Your task to perform on an android device: Show me recent news Image 0: 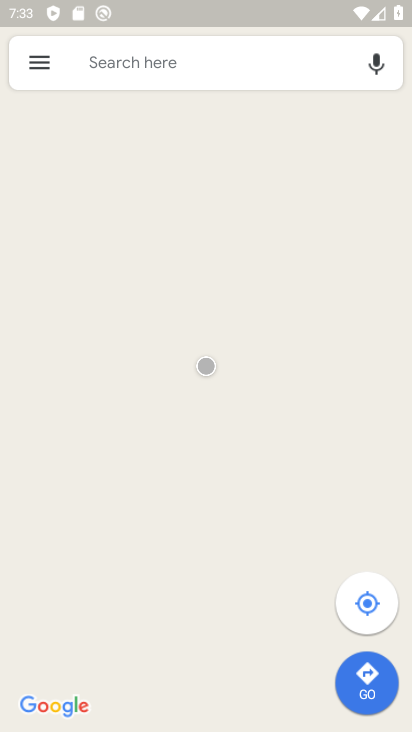
Step 0: press back button
Your task to perform on an android device: Show me recent news Image 1: 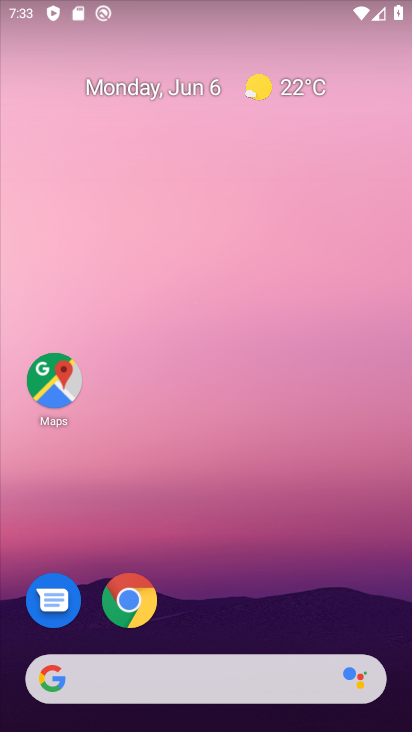
Step 1: drag from (223, 591) to (189, 181)
Your task to perform on an android device: Show me recent news Image 2: 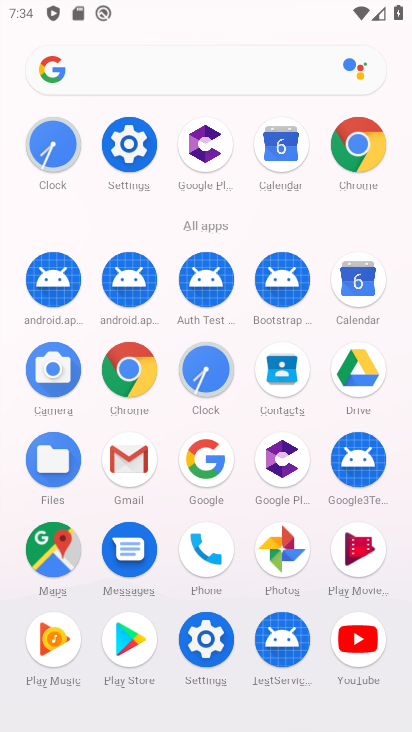
Step 2: click (203, 458)
Your task to perform on an android device: Show me recent news Image 3: 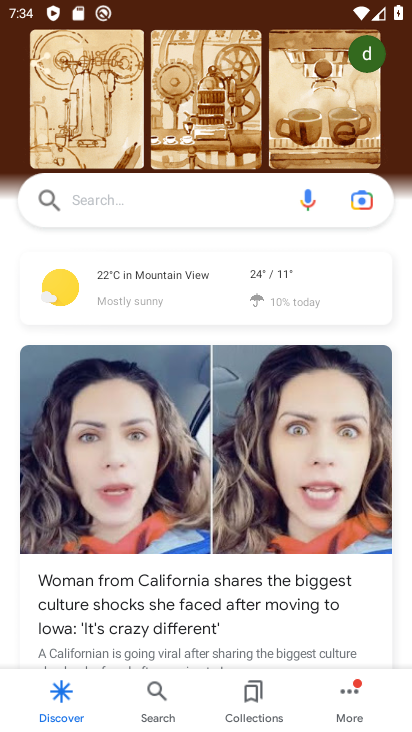
Step 3: click (175, 206)
Your task to perform on an android device: Show me recent news Image 4: 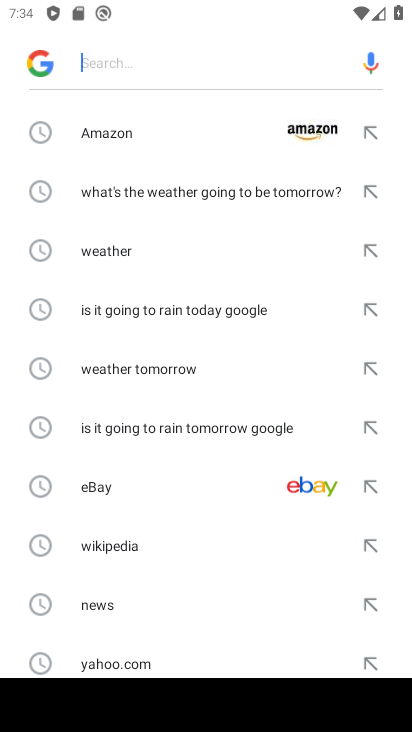
Step 4: type "recent news"
Your task to perform on an android device: Show me recent news Image 5: 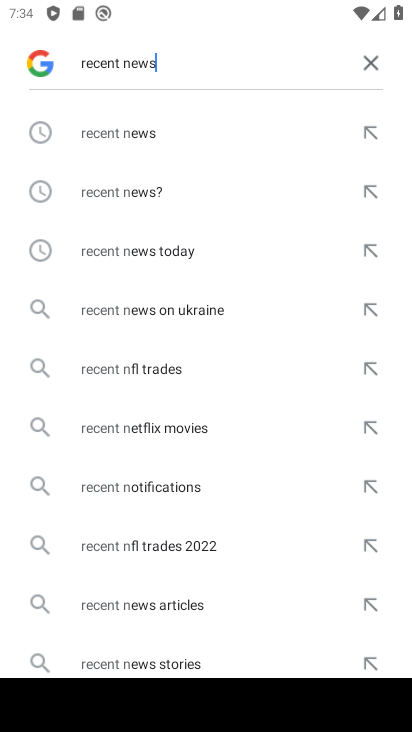
Step 5: type ""
Your task to perform on an android device: Show me recent news Image 6: 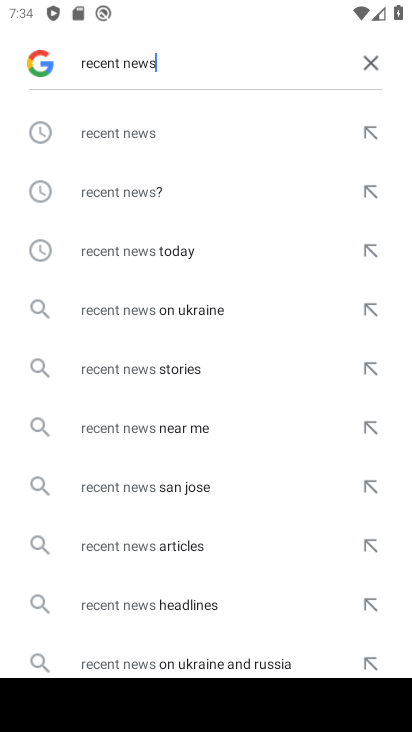
Step 6: click (125, 148)
Your task to perform on an android device: Show me recent news Image 7: 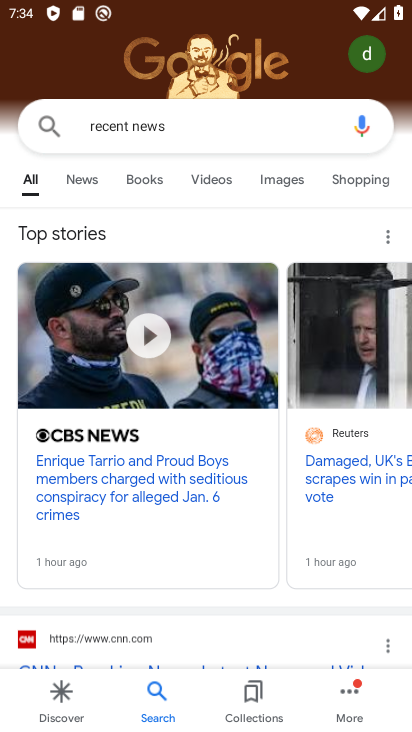
Step 7: task complete